Your task to perform on an android device: Open maps Image 0: 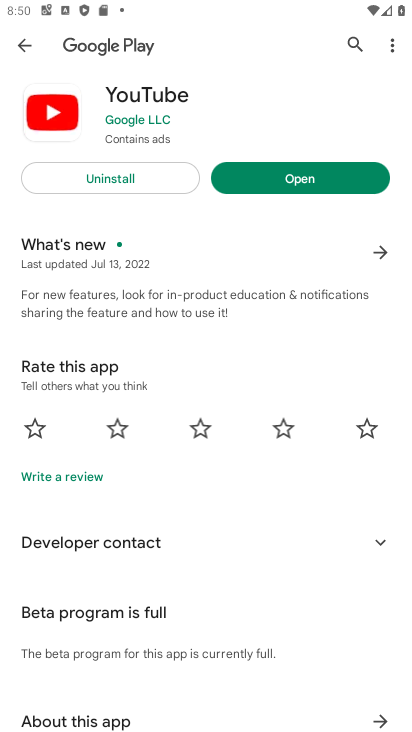
Step 0: press home button
Your task to perform on an android device: Open maps Image 1: 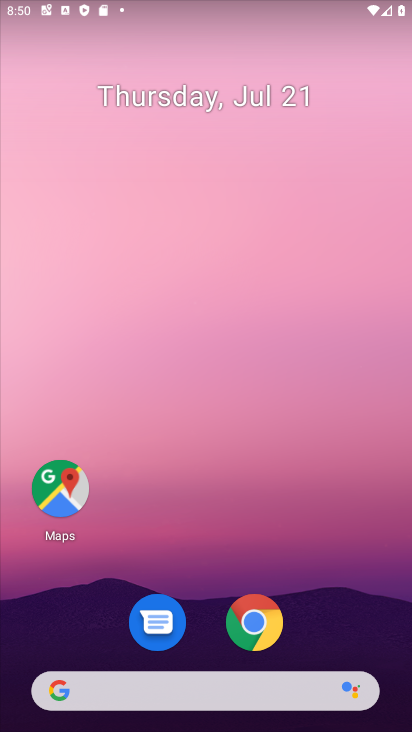
Step 1: click (74, 496)
Your task to perform on an android device: Open maps Image 2: 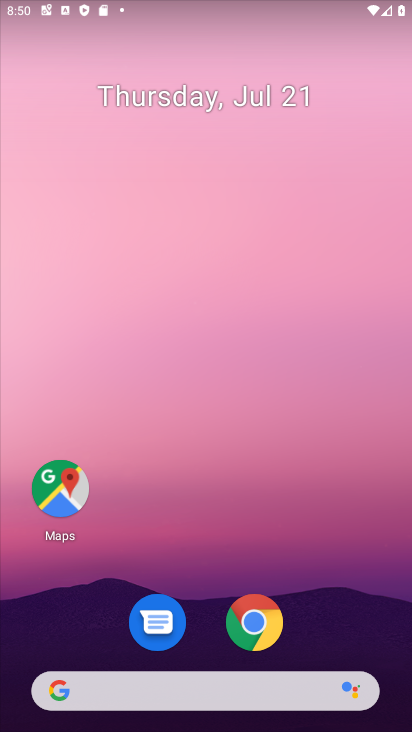
Step 2: click (73, 502)
Your task to perform on an android device: Open maps Image 3: 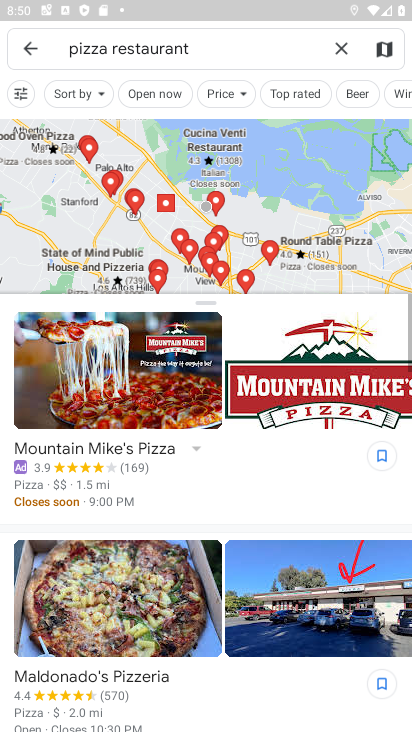
Step 3: task complete